Your task to perform on an android device: turn on sleep mode Image 0: 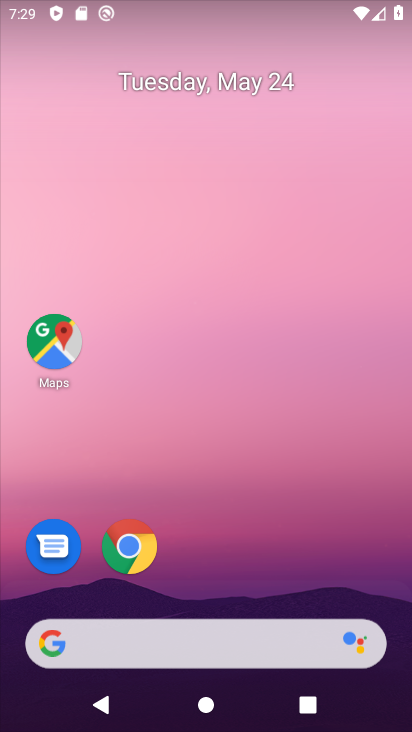
Step 0: drag from (212, 531) to (220, 63)
Your task to perform on an android device: turn on sleep mode Image 1: 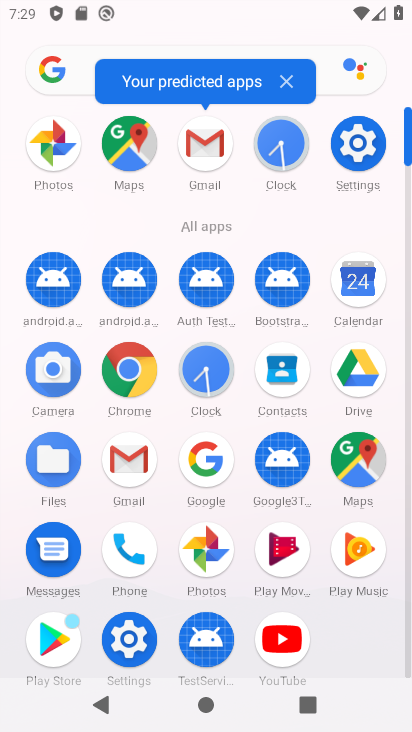
Step 1: click (352, 146)
Your task to perform on an android device: turn on sleep mode Image 2: 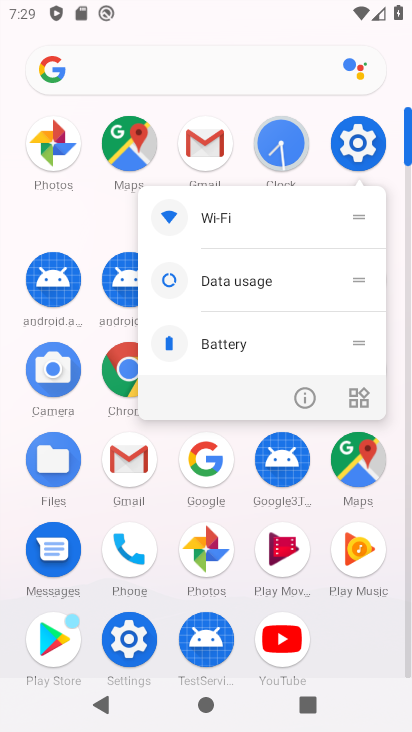
Step 2: click (360, 135)
Your task to perform on an android device: turn on sleep mode Image 3: 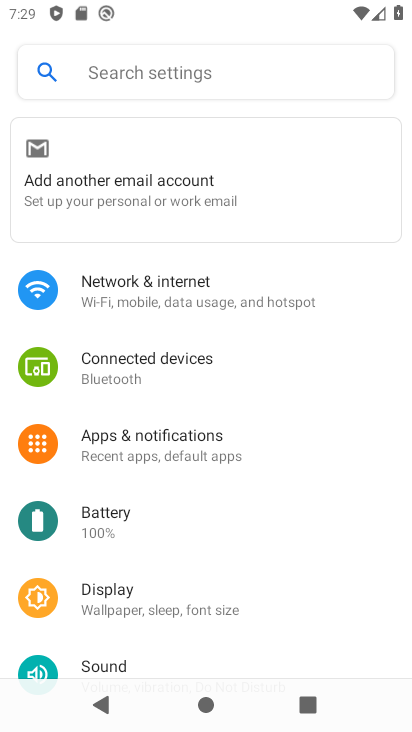
Step 3: click (141, 606)
Your task to perform on an android device: turn on sleep mode Image 4: 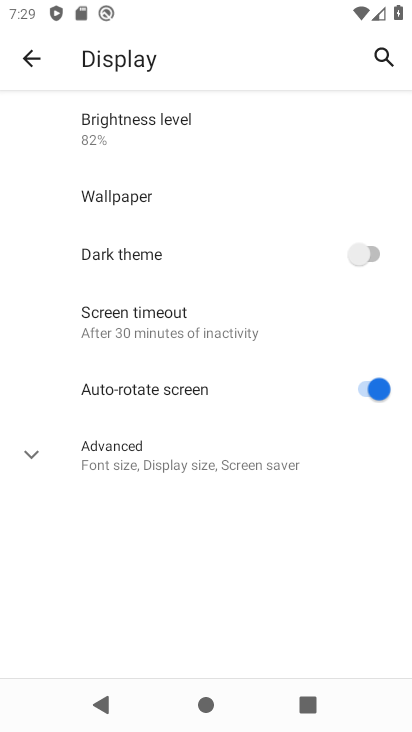
Step 4: click (31, 450)
Your task to perform on an android device: turn on sleep mode Image 5: 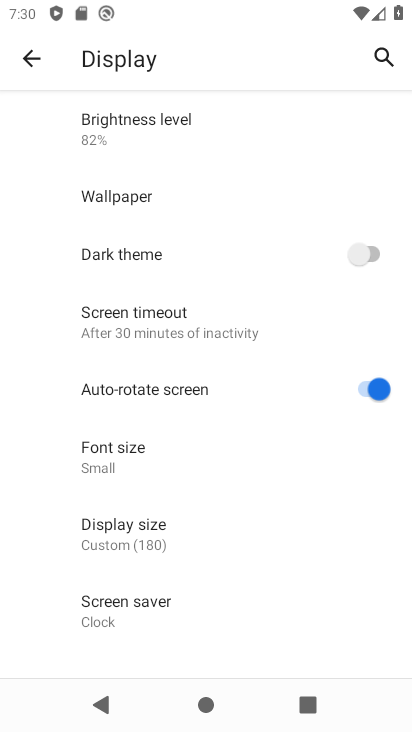
Step 5: task complete